Your task to perform on an android device: Open sound settings Image 0: 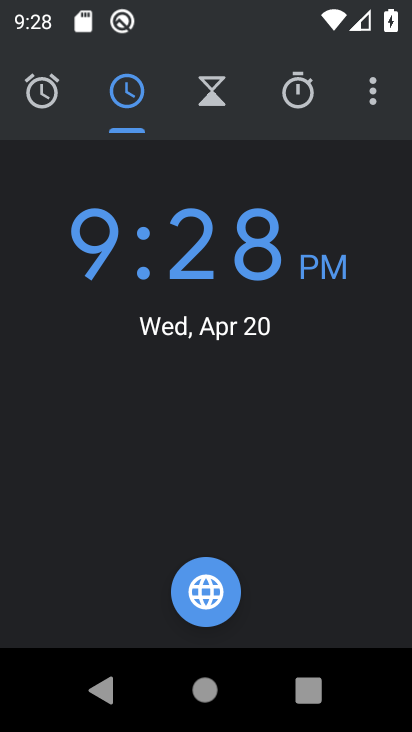
Step 0: press home button
Your task to perform on an android device: Open sound settings Image 1: 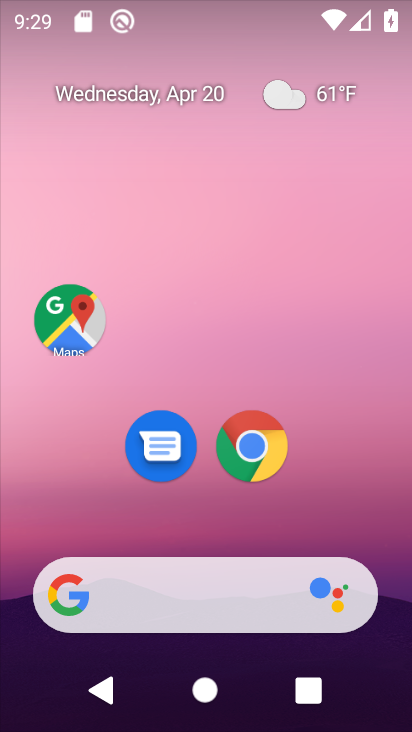
Step 1: drag from (324, 491) to (325, 124)
Your task to perform on an android device: Open sound settings Image 2: 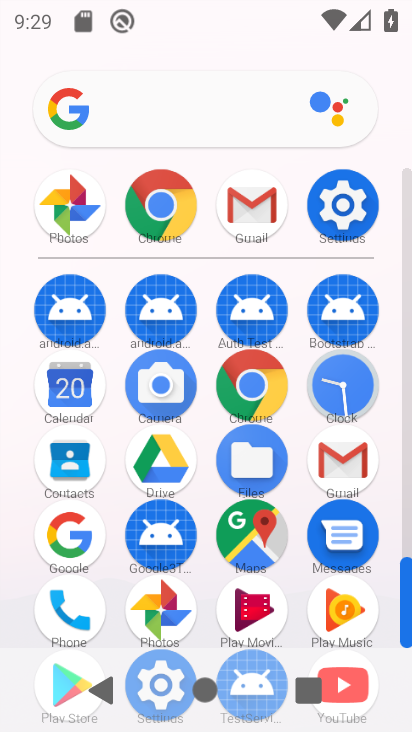
Step 2: click (345, 219)
Your task to perform on an android device: Open sound settings Image 3: 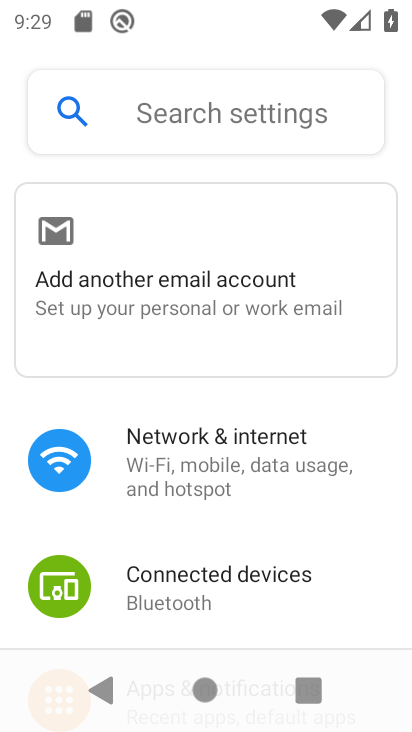
Step 3: drag from (347, 549) to (324, 234)
Your task to perform on an android device: Open sound settings Image 4: 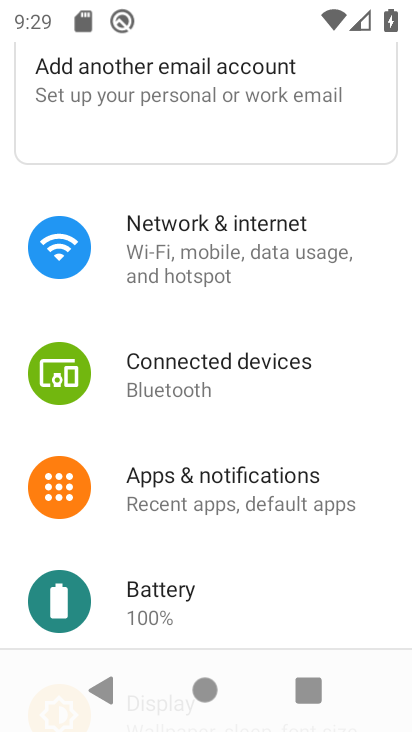
Step 4: drag from (331, 564) to (318, 259)
Your task to perform on an android device: Open sound settings Image 5: 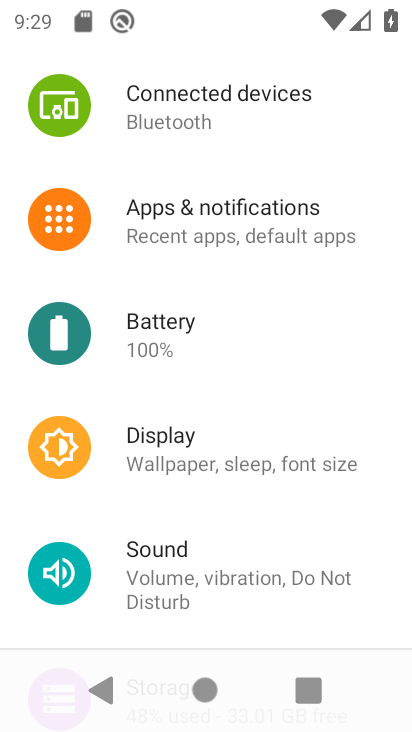
Step 5: click (211, 555)
Your task to perform on an android device: Open sound settings Image 6: 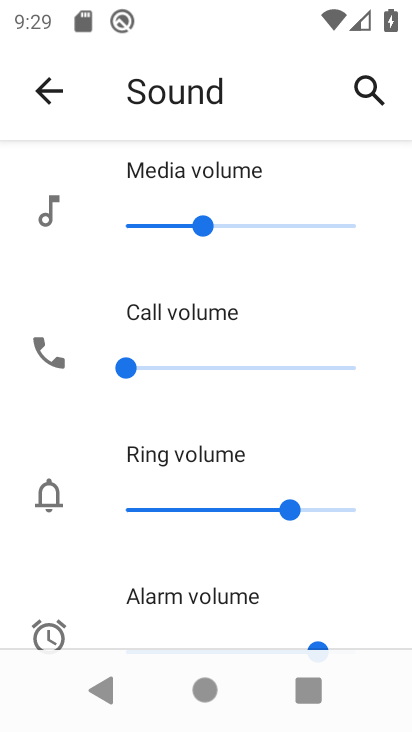
Step 6: task complete